Your task to perform on an android device: Check the weather Image 0: 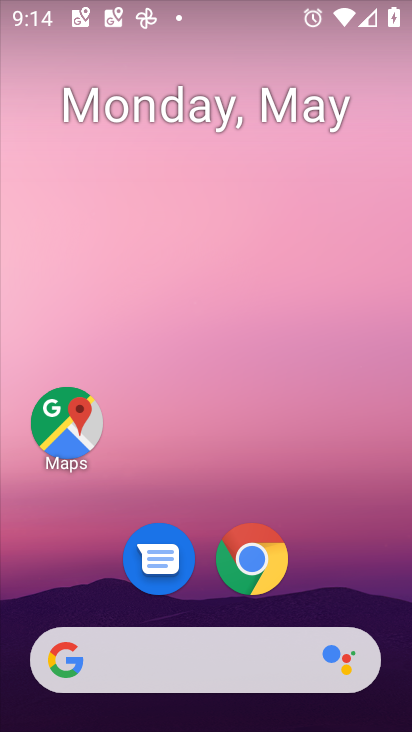
Step 0: drag from (391, 650) to (244, 46)
Your task to perform on an android device: Check the weather Image 1: 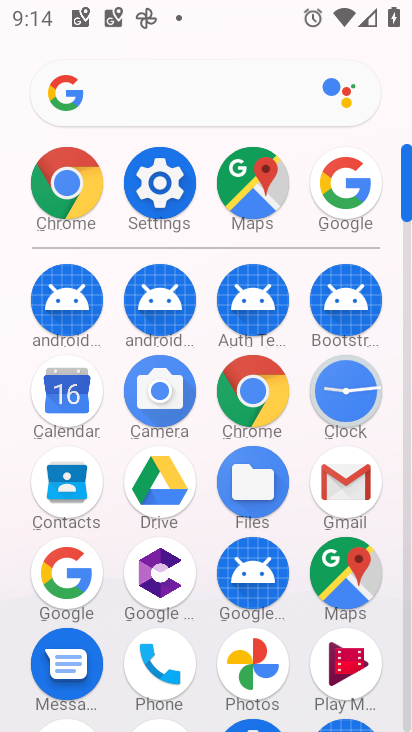
Step 1: click (56, 572)
Your task to perform on an android device: Check the weather Image 2: 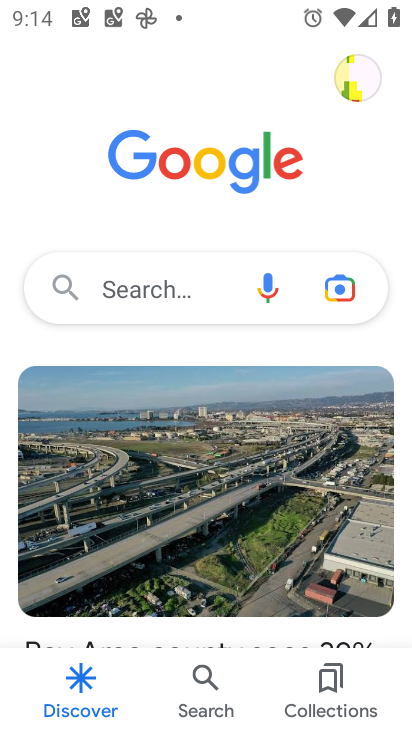
Step 2: click (157, 302)
Your task to perform on an android device: Check the weather Image 3: 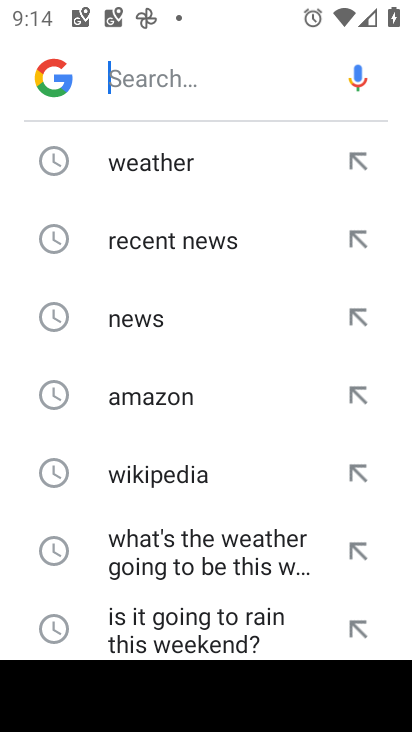
Step 3: click (174, 172)
Your task to perform on an android device: Check the weather Image 4: 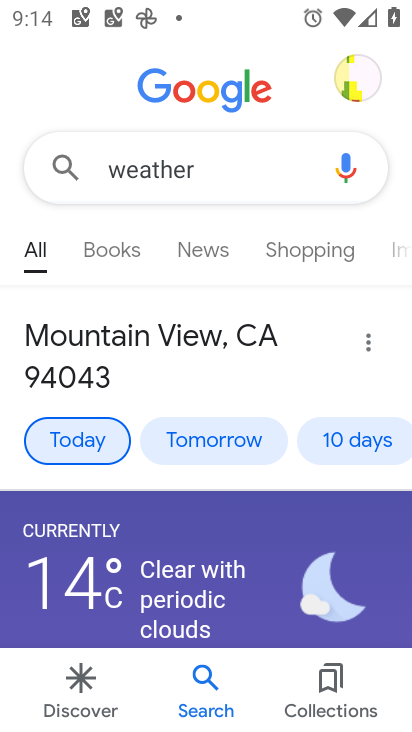
Step 4: task complete